Your task to perform on an android device: delete browsing data in the chrome app Image 0: 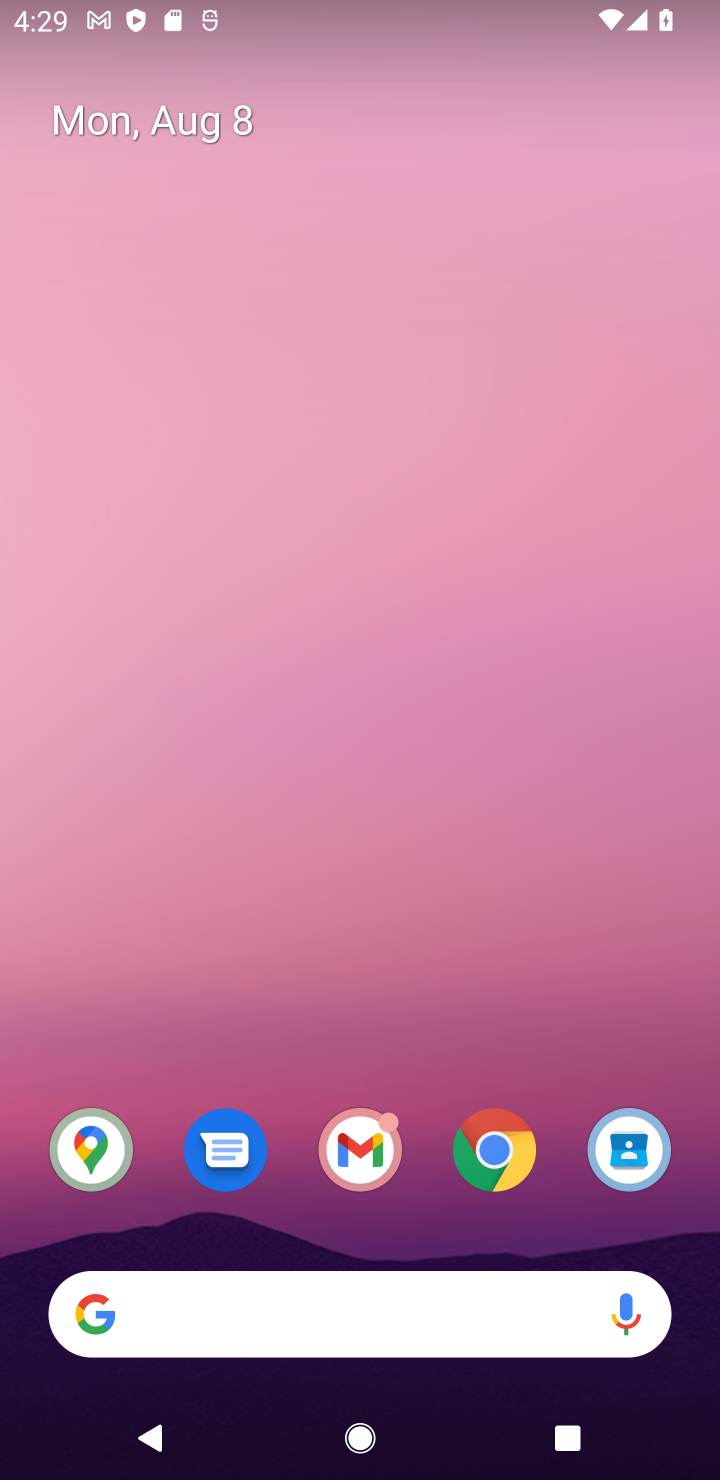
Step 0: click (526, 1152)
Your task to perform on an android device: delete browsing data in the chrome app Image 1: 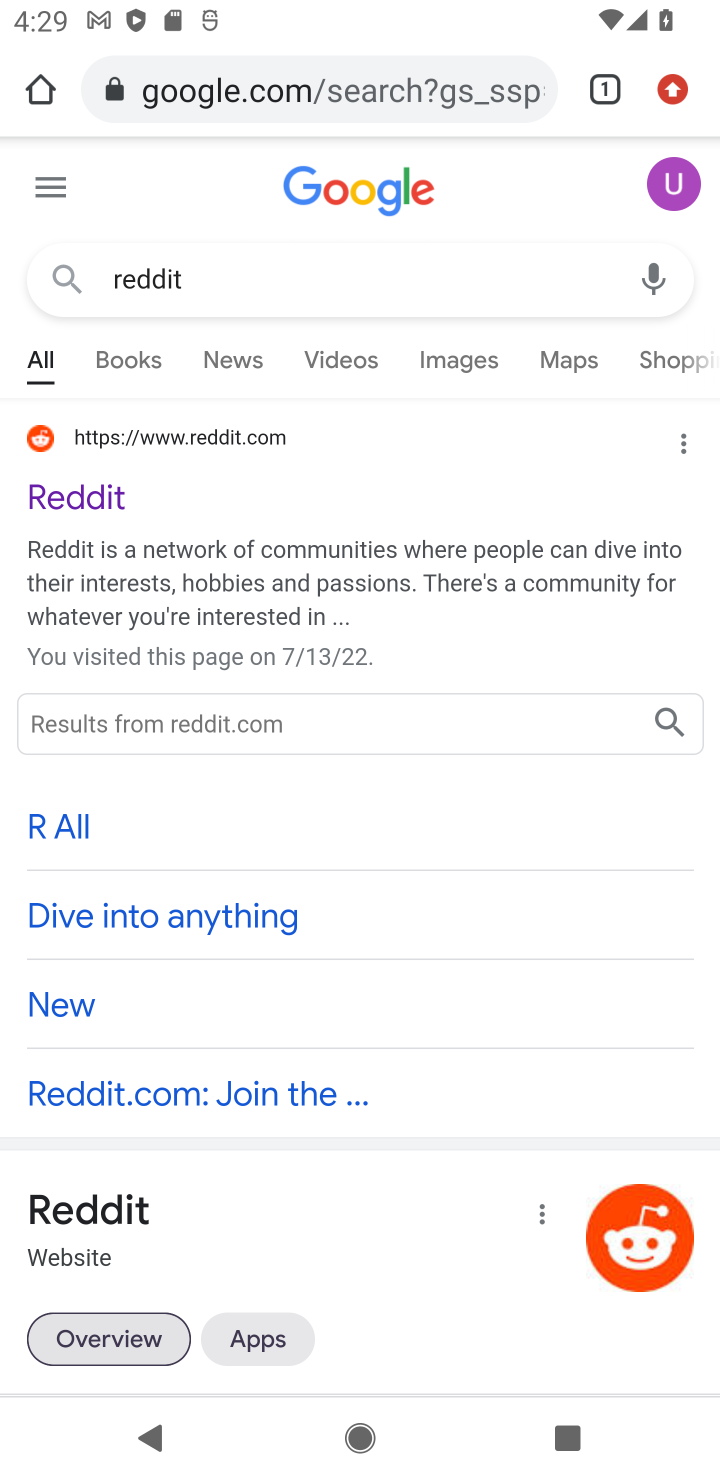
Step 1: click (670, 82)
Your task to perform on an android device: delete browsing data in the chrome app Image 2: 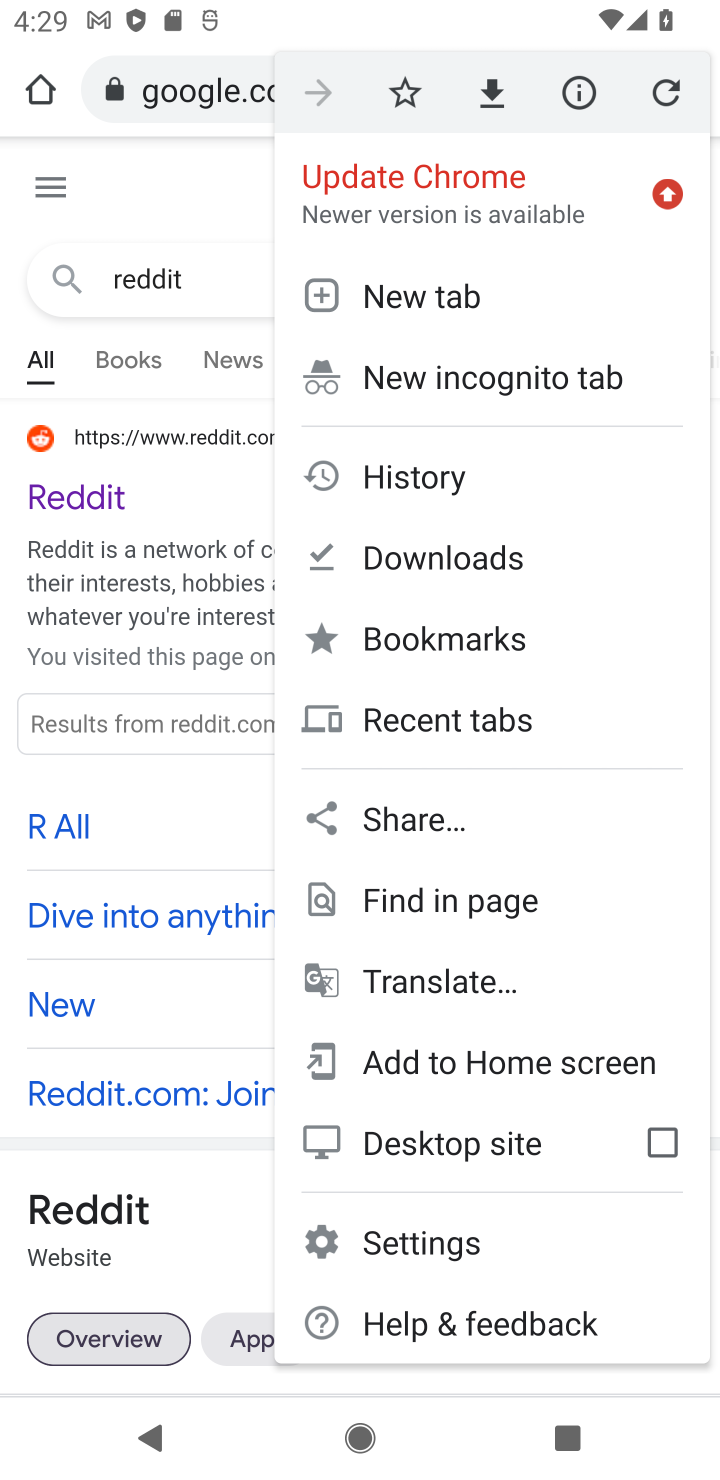
Step 2: task complete